Your task to perform on an android device: change notifications settings Image 0: 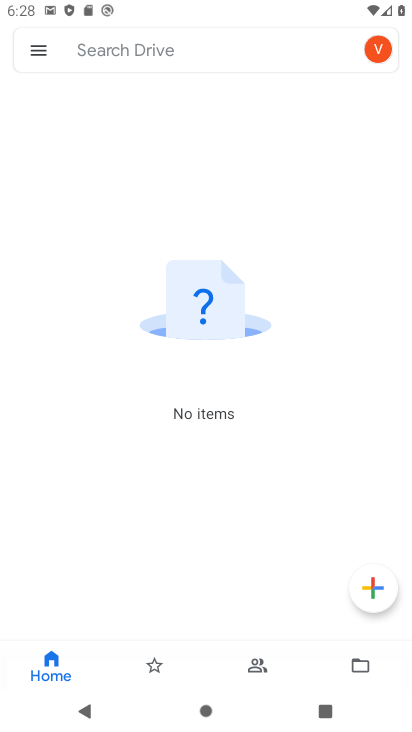
Step 0: press home button
Your task to perform on an android device: change notifications settings Image 1: 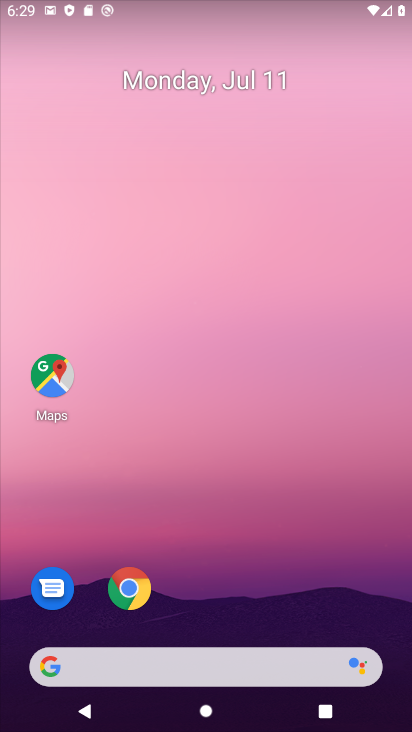
Step 1: drag from (402, 624) to (164, 47)
Your task to perform on an android device: change notifications settings Image 2: 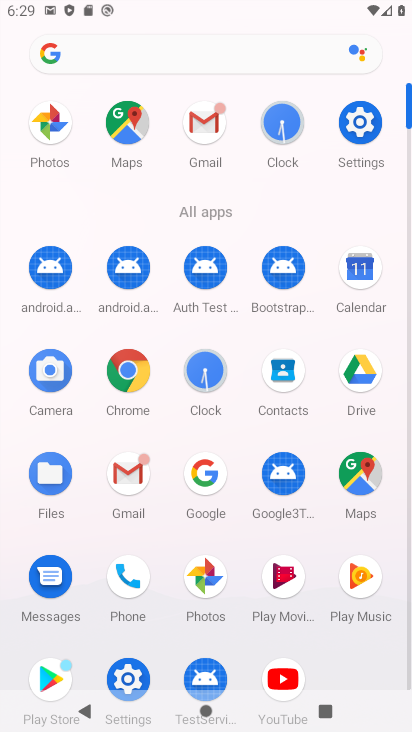
Step 2: click (375, 140)
Your task to perform on an android device: change notifications settings Image 3: 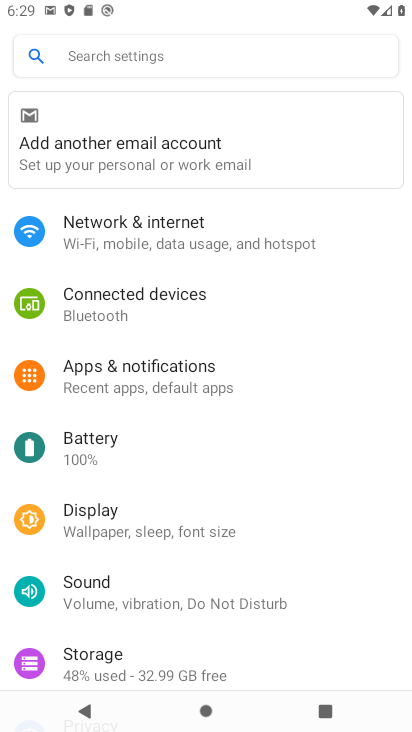
Step 3: click (155, 382)
Your task to perform on an android device: change notifications settings Image 4: 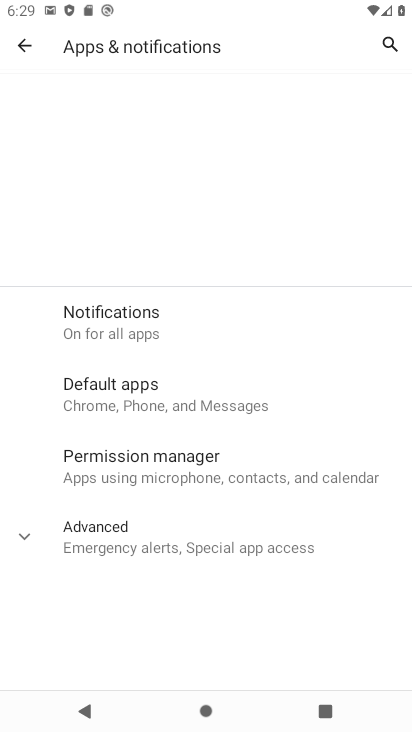
Step 4: click (145, 326)
Your task to perform on an android device: change notifications settings Image 5: 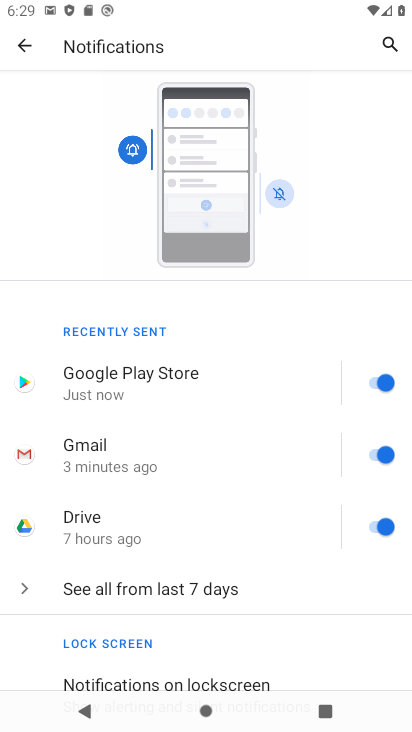
Step 5: task complete